Your task to perform on an android device: all mails in gmail Image 0: 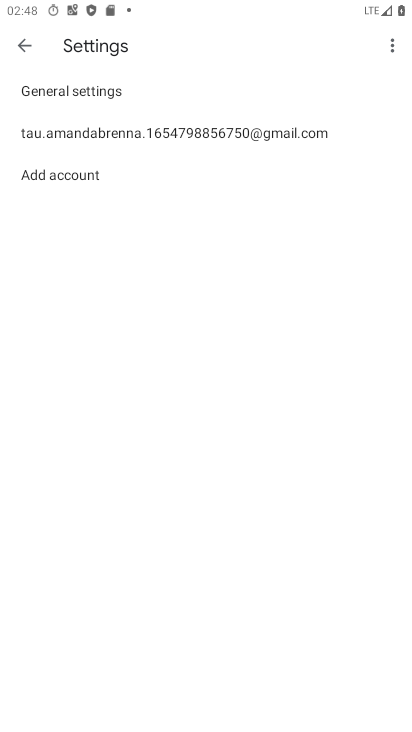
Step 0: press home button
Your task to perform on an android device: all mails in gmail Image 1: 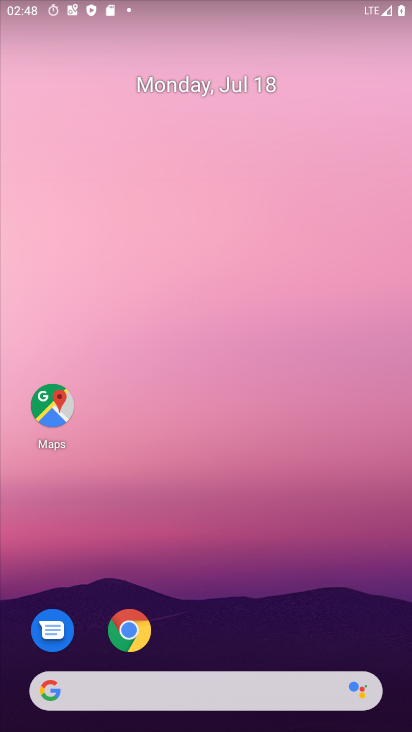
Step 1: drag from (207, 636) to (219, 348)
Your task to perform on an android device: all mails in gmail Image 2: 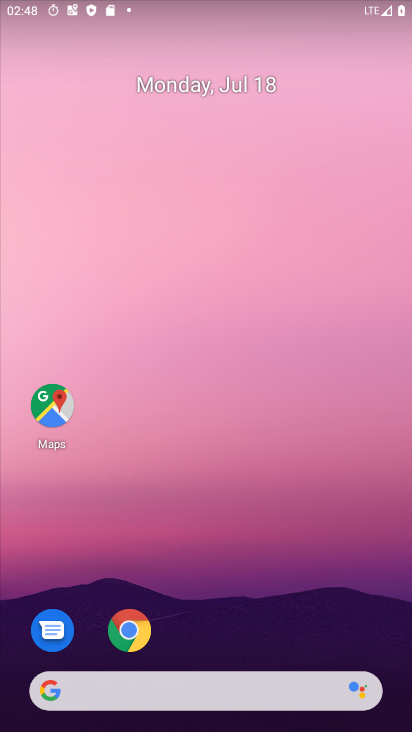
Step 2: drag from (179, 615) to (85, 38)
Your task to perform on an android device: all mails in gmail Image 3: 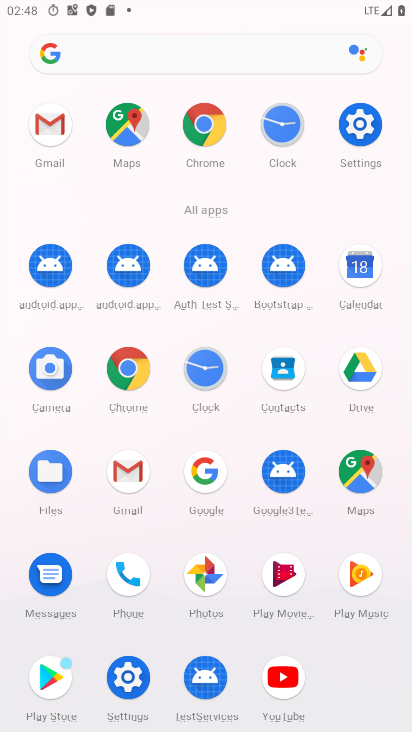
Step 3: click (54, 170)
Your task to perform on an android device: all mails in gmail Image 4: 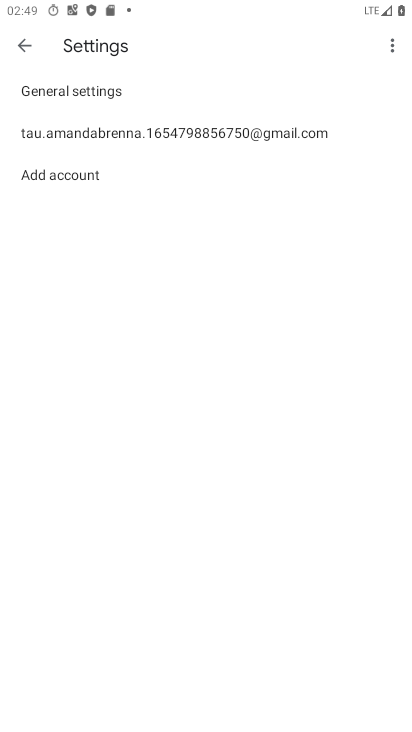
Step 4: click (29, 51)
Your task to perform on an android device: all mails in gmail Image 5: 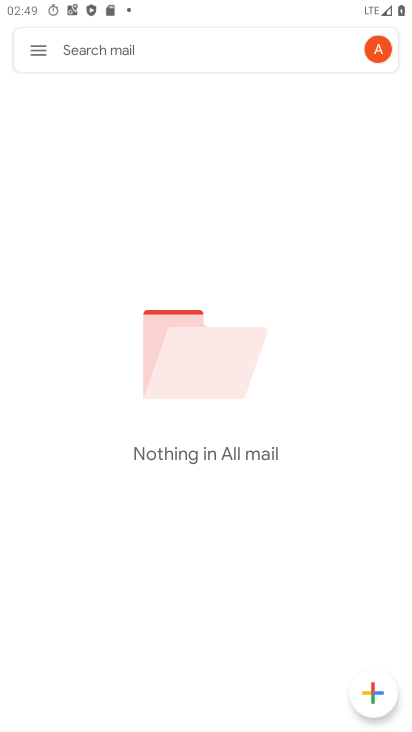
Step 5: click (29, 51)
Your task to perform on an android device: all mails in gmail Image 6: 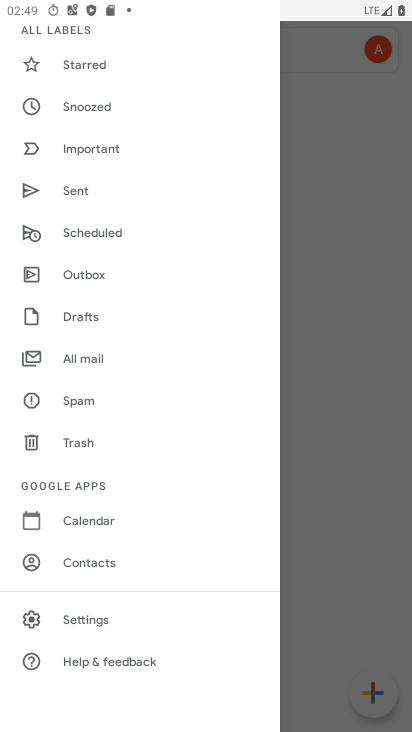
Step 6: click (99, 357)
Your task to perform on an android device: all mails in gmail Image 7: 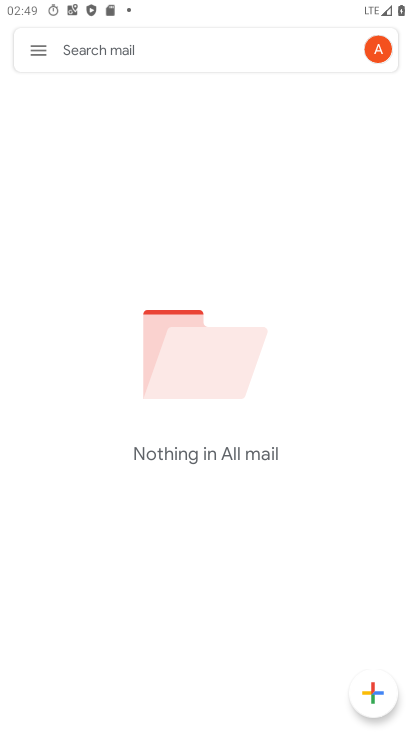
Step 7: task complete